Your task to perform on an android device: show emergency info Image 0: 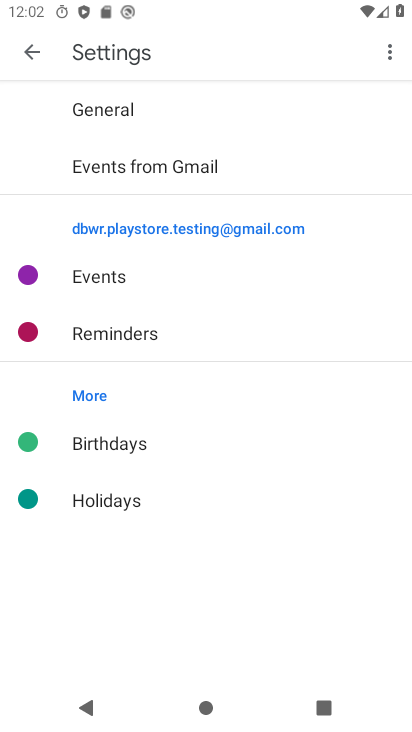
Step 0: press home button
Your task to perform on an android device: show emergency info Image 1: 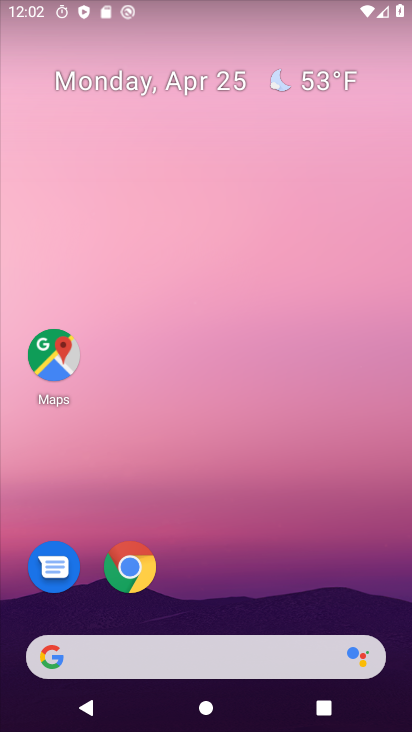
Step 1: drag from (244, 562) to (243, 118)
Your task to perform on an android device: show emergency info Image 2: 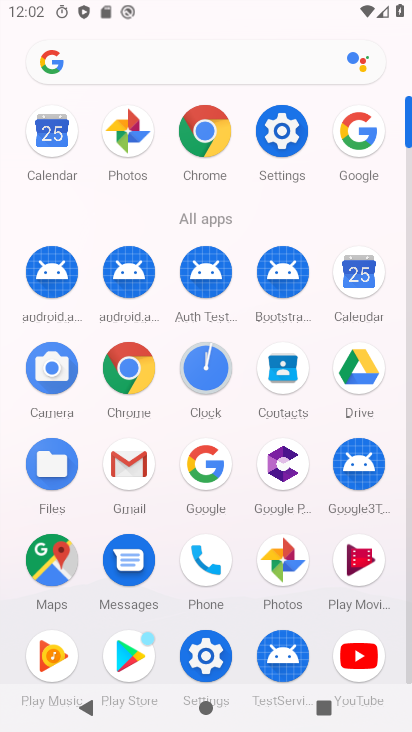
Step 2: click (273, 129)
Your task to perform on an android device: show emergency info Image 3: 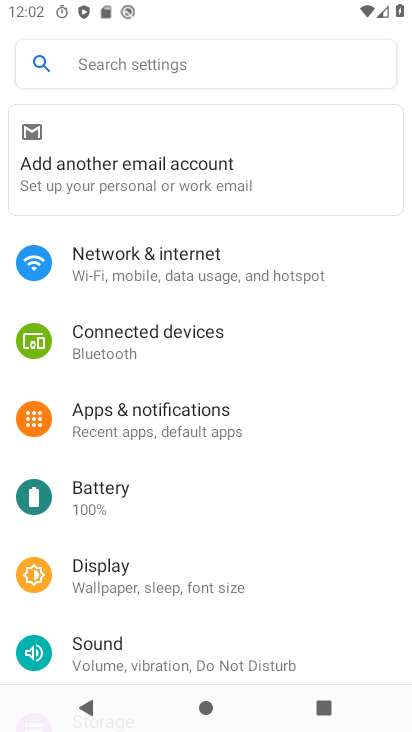
Step 3: drag from (225, 608) to (326, 267)
Your task to perform on an android device: show emergency info Image 4: 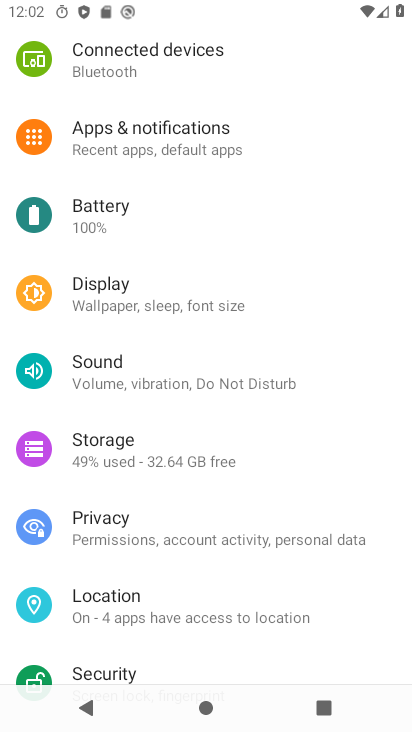
Step 4: drag from (247, 577) to (310, 257)
Your task to perform on an android device: show emergency info Image 5: 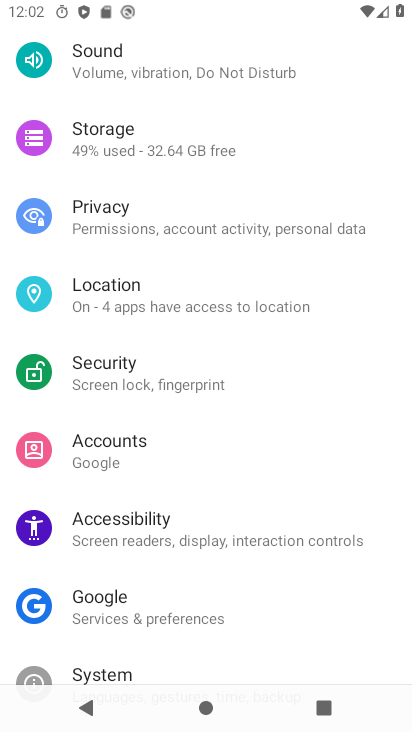
Step 5: drag from (202, 568) to (268, 286)
Your task to perform on an android device: show emergency info Image 6: 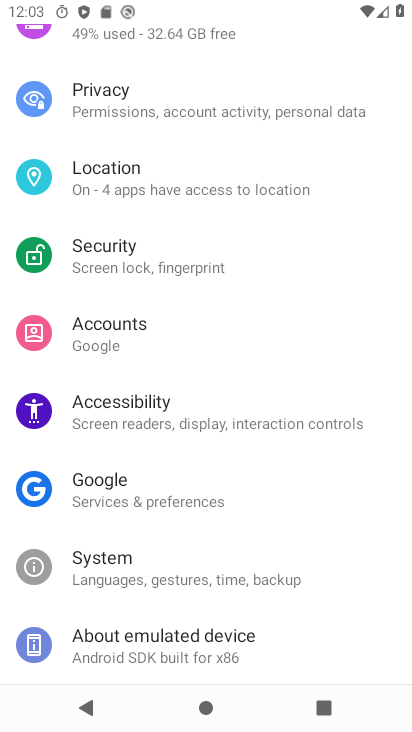
Step 6: click (186, 649)
Your task to perform on an android device: show emergency info Image 7: 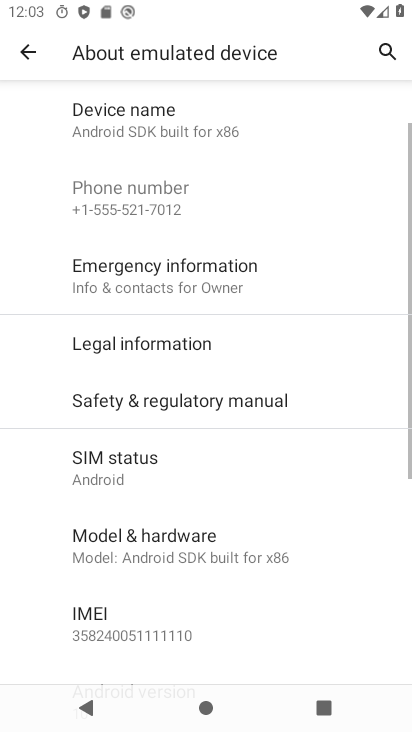
Step 7: task complete